Your task to perform on an android device: Set the phone to "Do not disturb". Image 0: 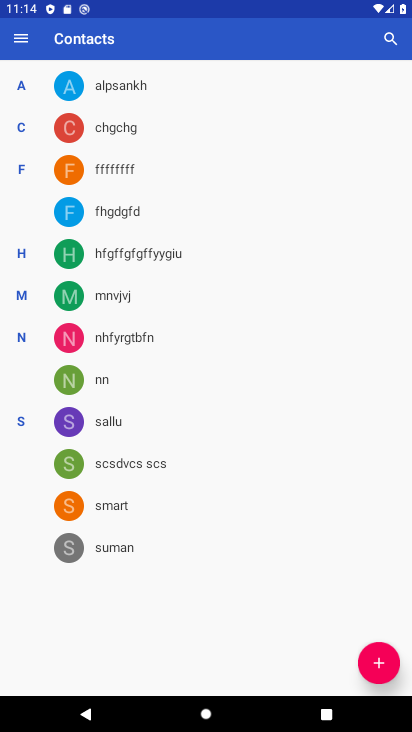
Step 0: press home button
Your task to perform on an android device: Set the phone to "Do not disturb". Image 1: 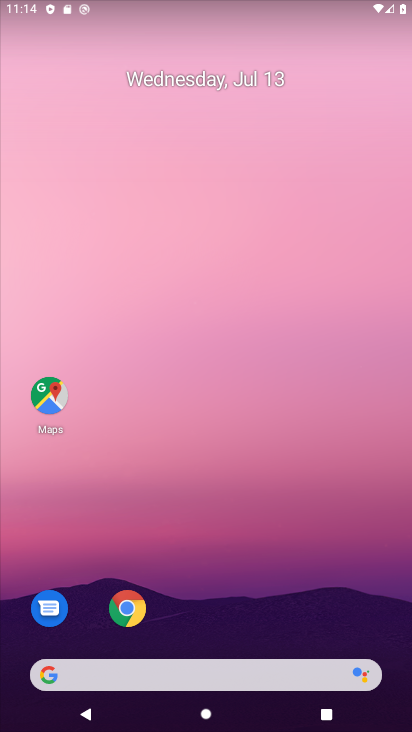
Step 1: drag from (251, 588) to (251, 137)
Your task to perform on an android device: Set the phone to "Do not disturb". Image 2: 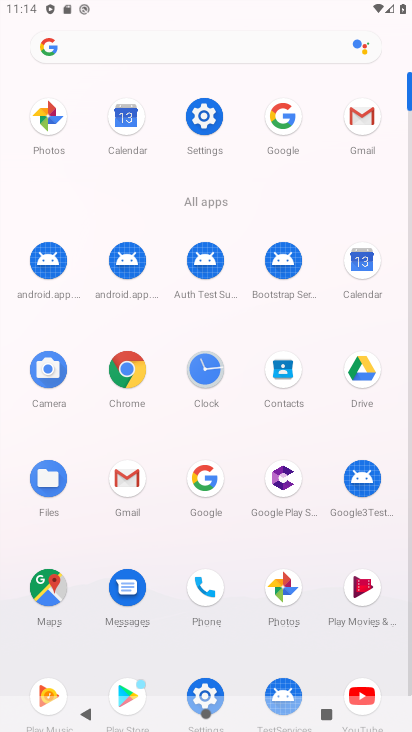
Step 2: click (200, 123)
Your task to perform on an android device: Set the phone to "Do not disturb". Image 3: 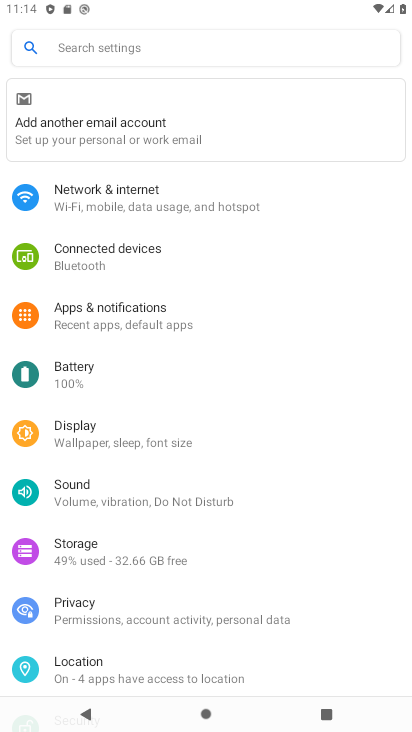
Step 3: click (134, 489)
Your task to perform on an android device: Set the phone to "Do not disturb". Image 4: 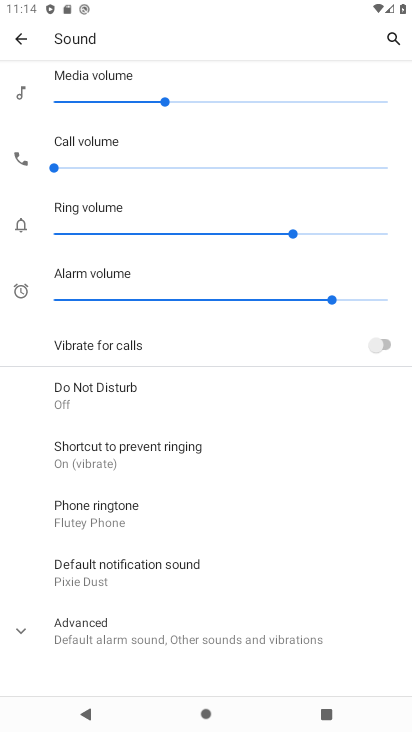
Step 4: click (182, 377)
Your task to perform on an android device: Set the phone to "Do not disturb". Image 5: 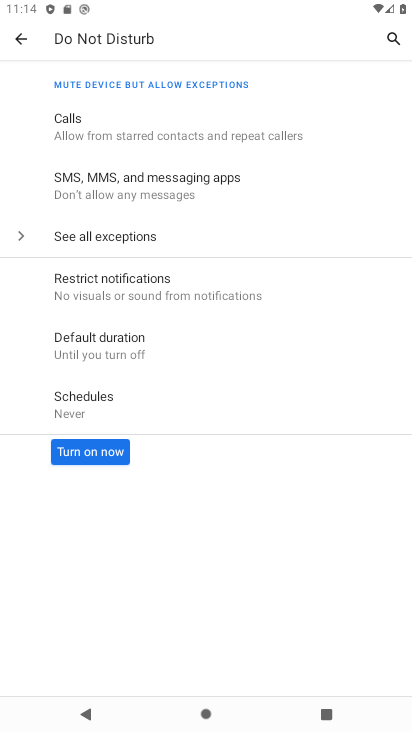
Step 5: click (57, 448)
Your task to perform on an android device: Set the phone to "Do not disturb". Image 6: 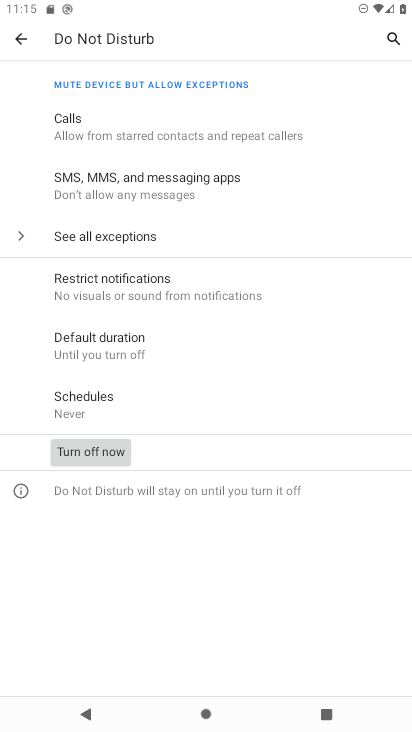
Step 6: task complete